Your task to perform on an android device: turn off translation in the chrome app Image 0: 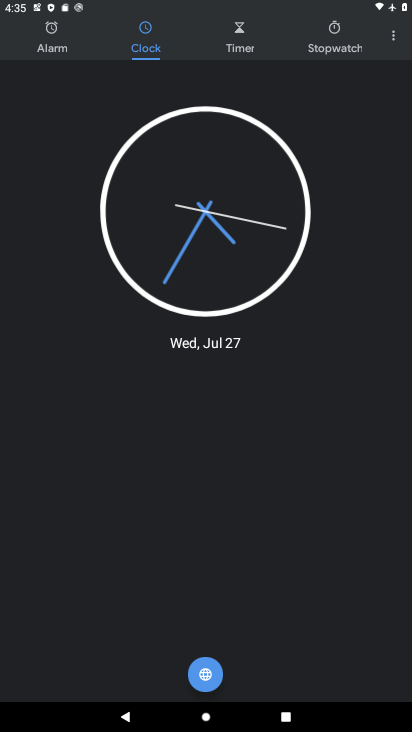
Step 0: press home button
Your task to perform on an android device: turn off translation in the chrome app Image 1: 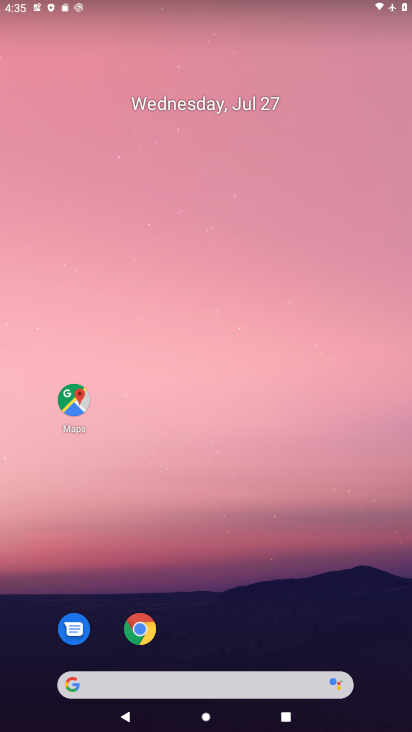
Step 1: click (124, 622)
Your task to perform on an android device: turn off translation in the chrome app Image 2: 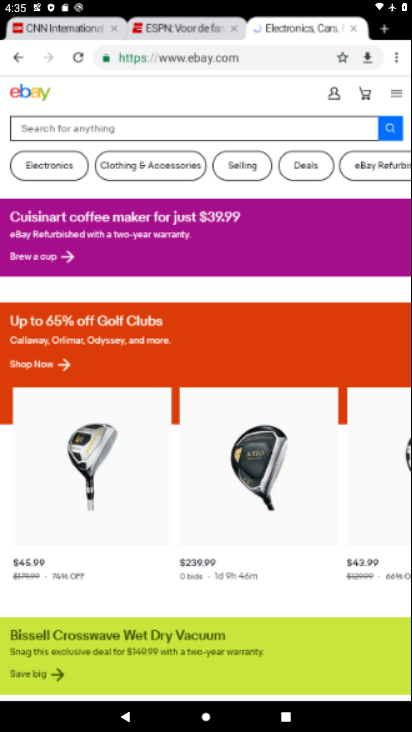
Step 2: click (124, 622)
Your task to perform on an android device: turn off translation in the chrome app Image 3: 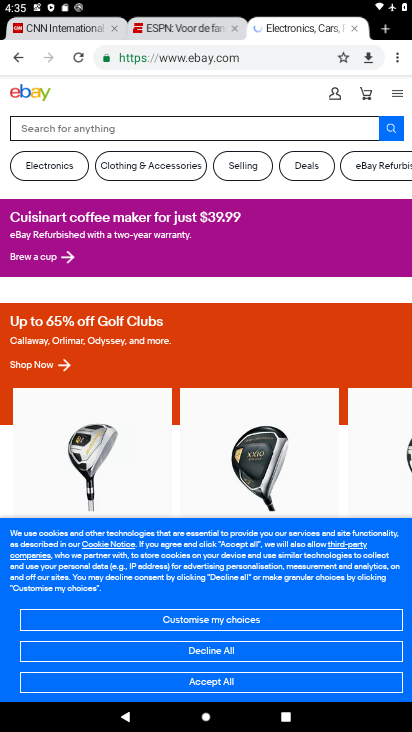
Step 3: click (397, 69)
Your task to perform on an android device: turn off translation in the chrome app Image 4: 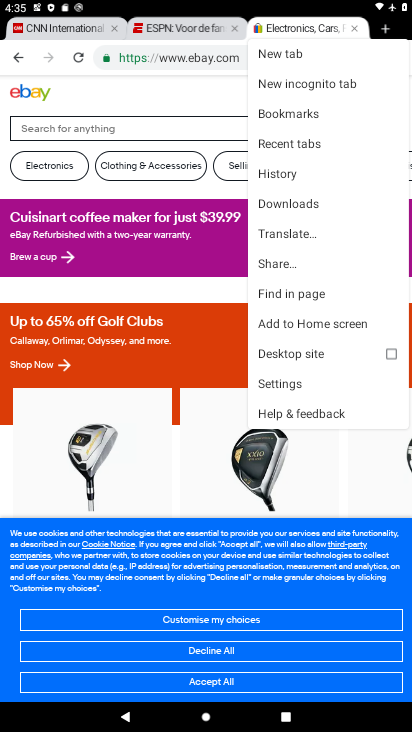
Step 4: click (300, 387)
Your task to perform on an android device: turn off translation in the chrome app Image 5: 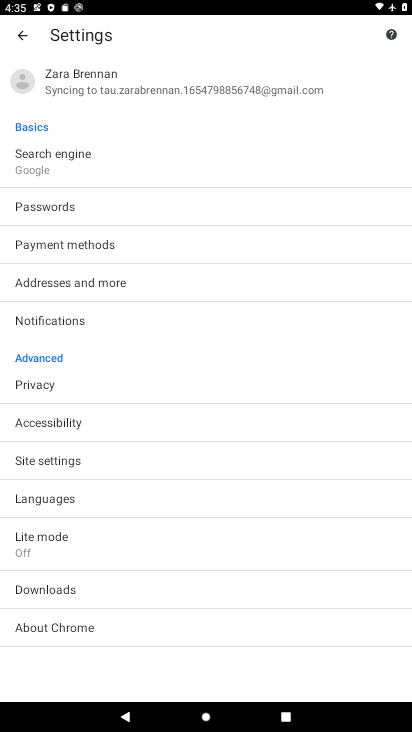
Step 5: click (27, 501)
Your task to perform on an android device: turn off translation in the chrome app Image 6: 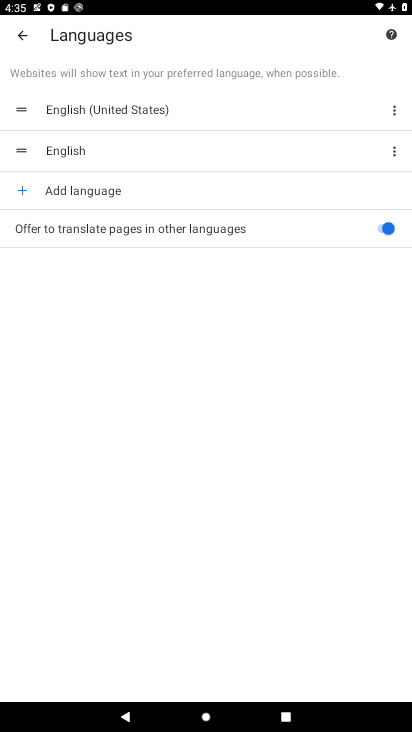
Step 6: click (374, 233)
Your task to perform on an android device: turn off translation in the chrome app Image 7: 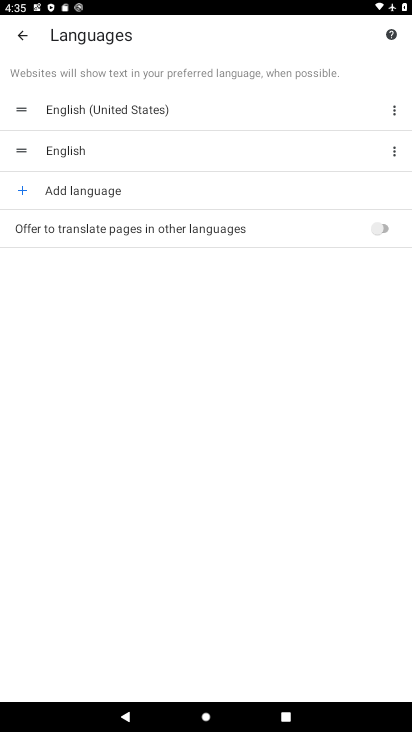
Step 7: task complete